Your task to perform on an android device: turn off improve location accuracy Image 0: 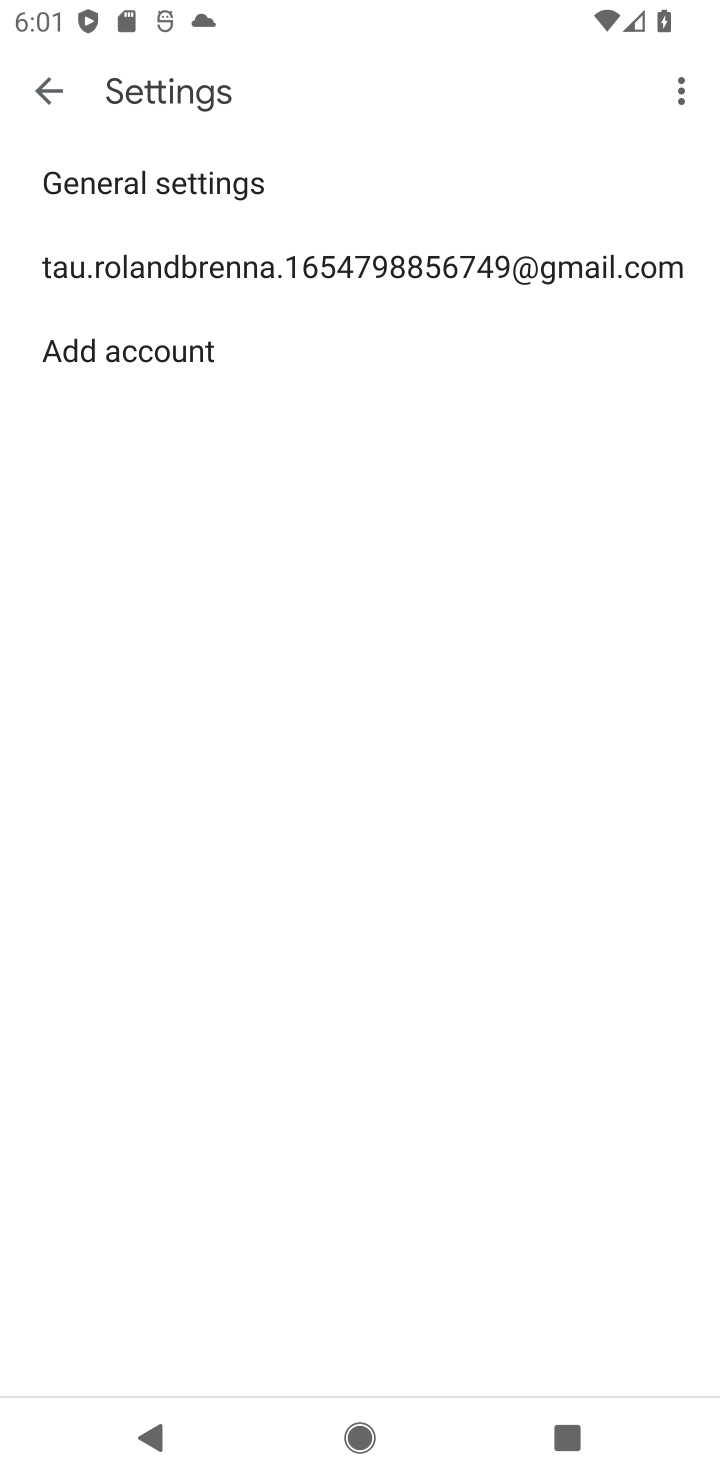
Step 0: press home button
Your task to perform on an android device: turn off improve location accuracy Image 1: 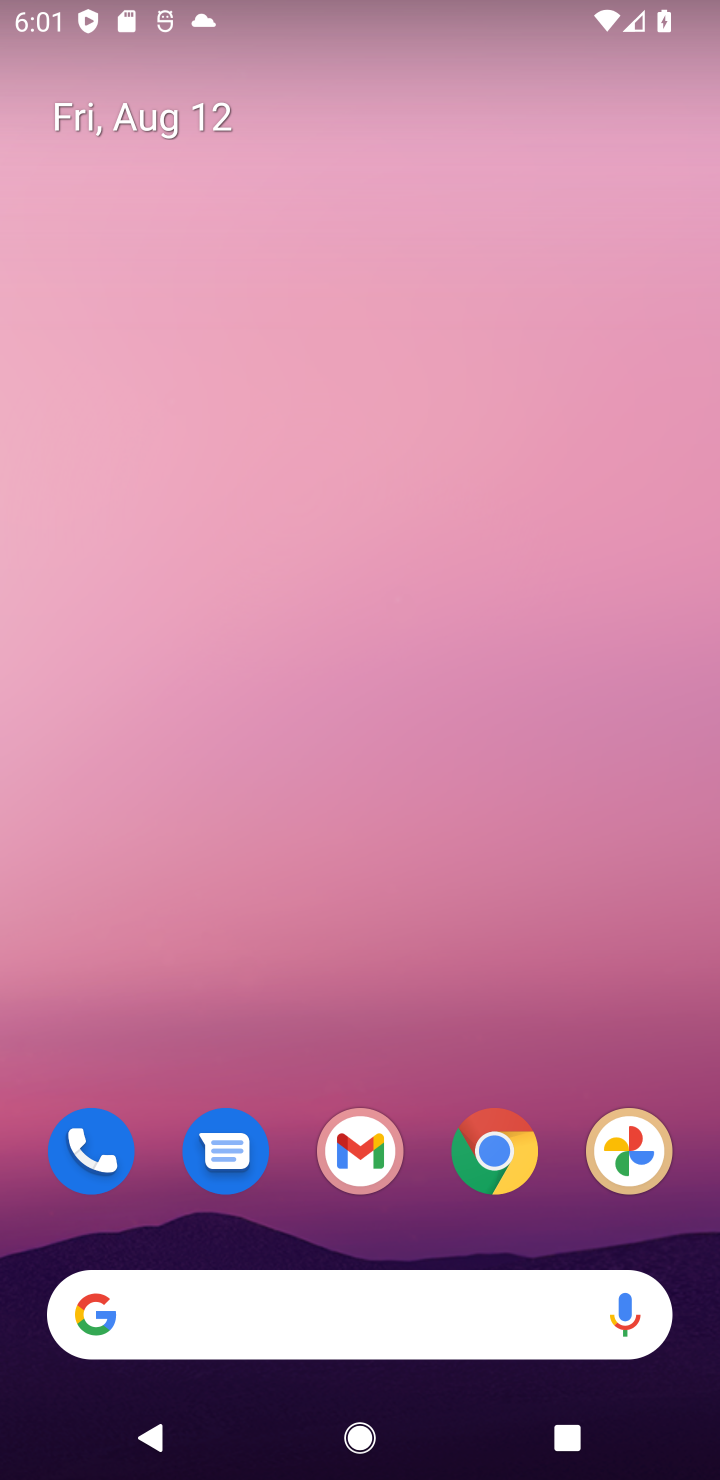
Step 1: drag from (498, 1031) to (693, 0)
Your task to perform on an android device: turn off improve location accuracy Image 2: 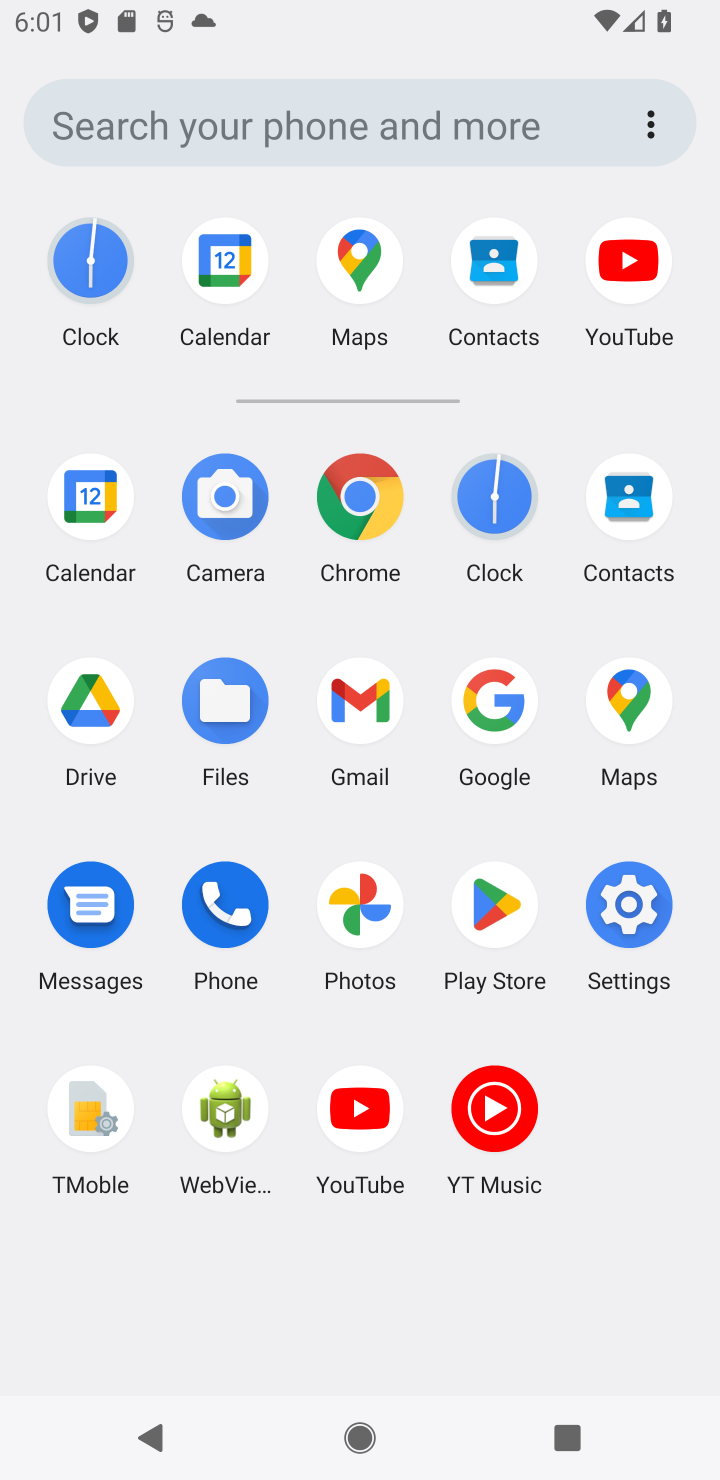
Step 2: click (629, 899)
Your task to perform on an android device: turn off improve location accuracy Image 3: 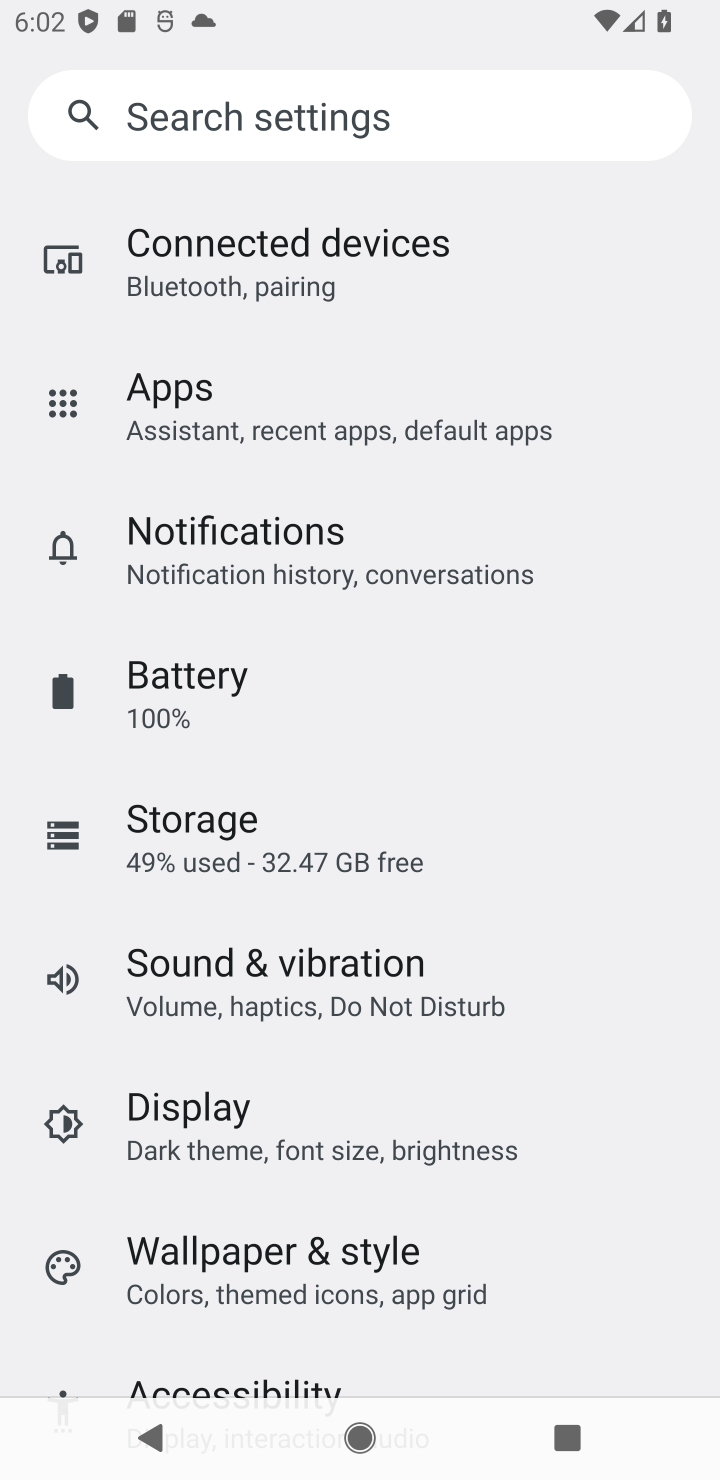
Step 3: drag from (482, 1018) to (463, 404)
Your task to perform on an android device: turn off improve location accuracy Image 4: 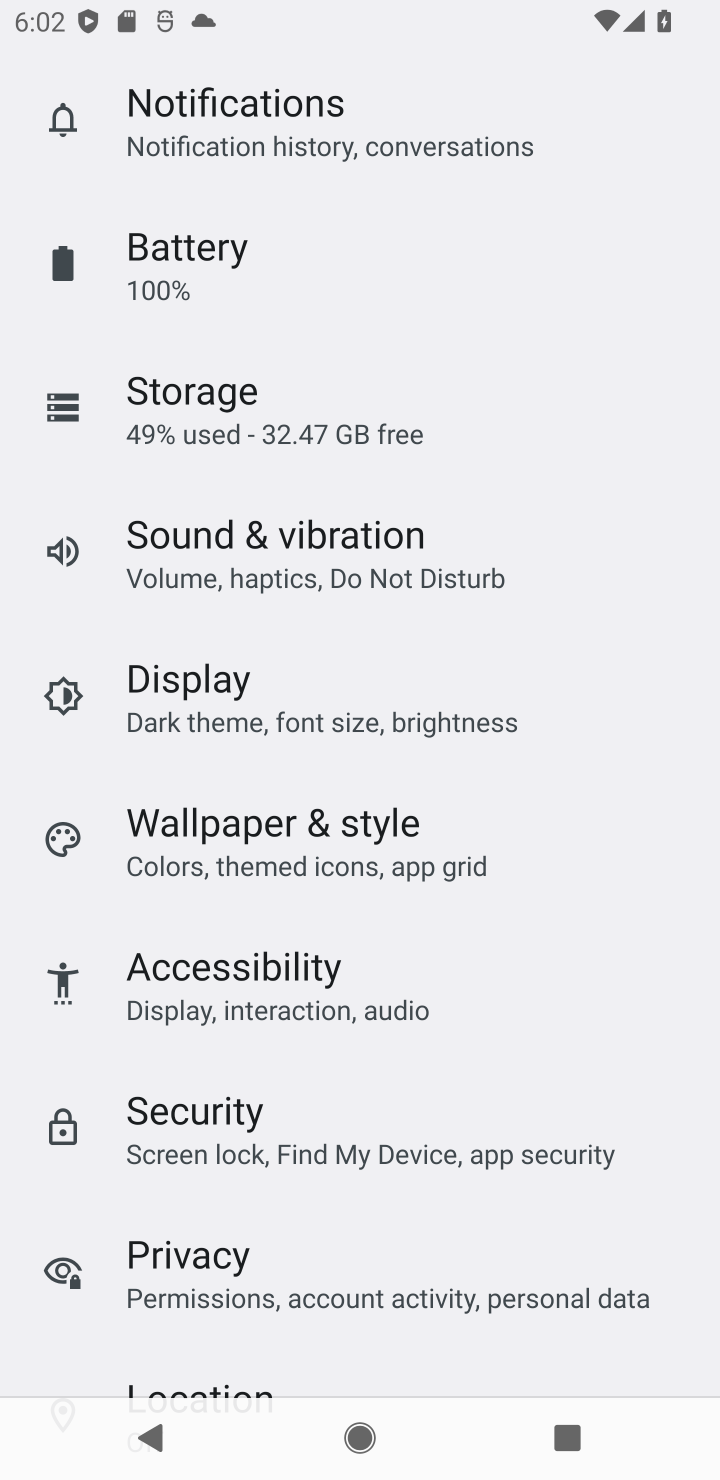
Step 4: drag from (580, 1063) to (575, 312)
Your task to perform on an android device: turn off improve location accuracy Image 5: 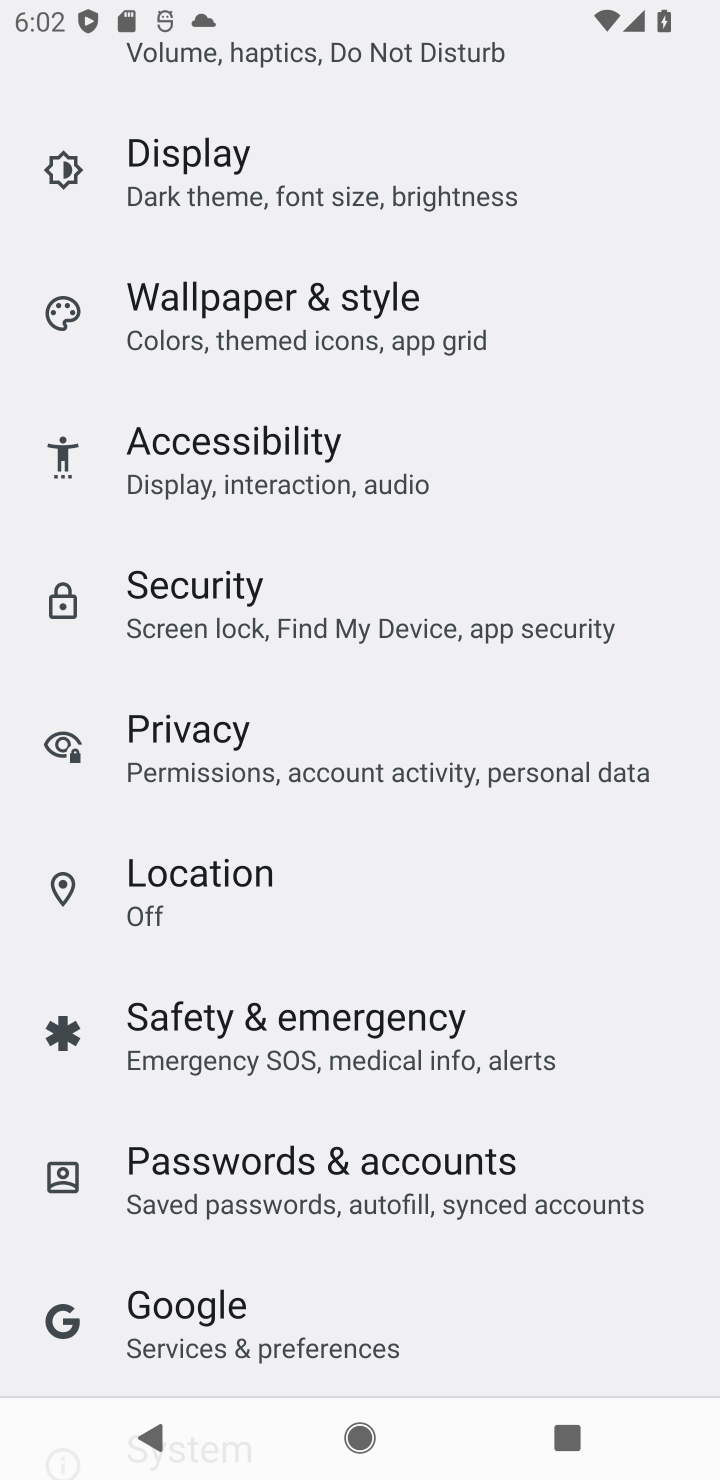
Step 5: click (190, 880)
Your task to perform on an android device: turn off improve location accuracy Image 6: 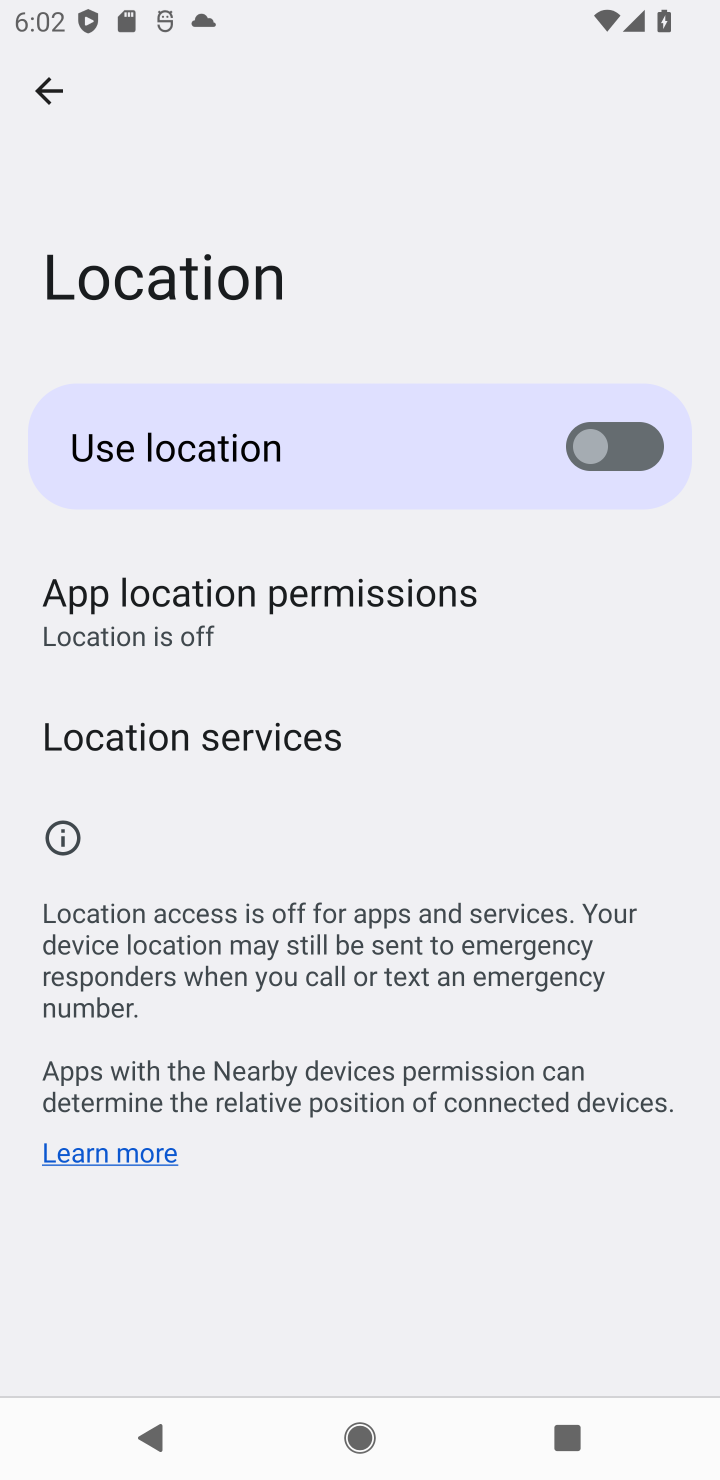
Step 6: task complete